Your task to perform on an android device: change keyboard looks Image 0: 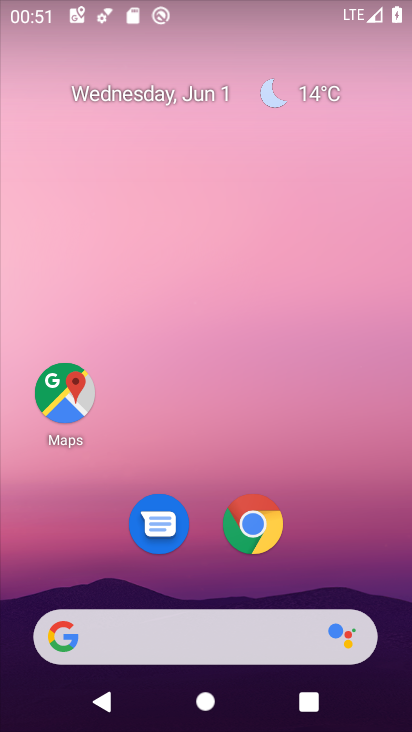
Step 0: drag from (307, 493) to (248, 17)
Your task to perform on an android device: change keyboard looks Image 1: 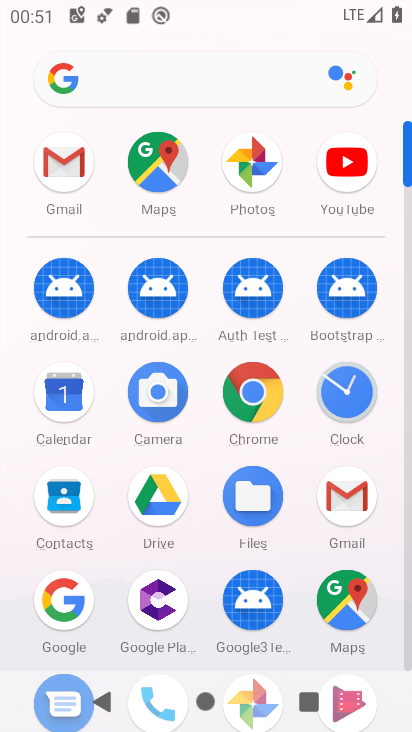
Step 1: drag from (199, 435) to (207, 119)
Your task to perform on an android device: change keyboard looks Image 2: 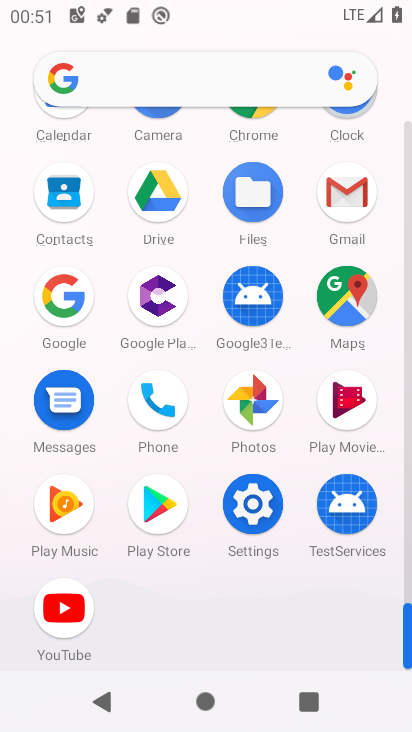
Step 2: click (253, 501)
Your task to perform on an android device: change keyboard looks Image 3: 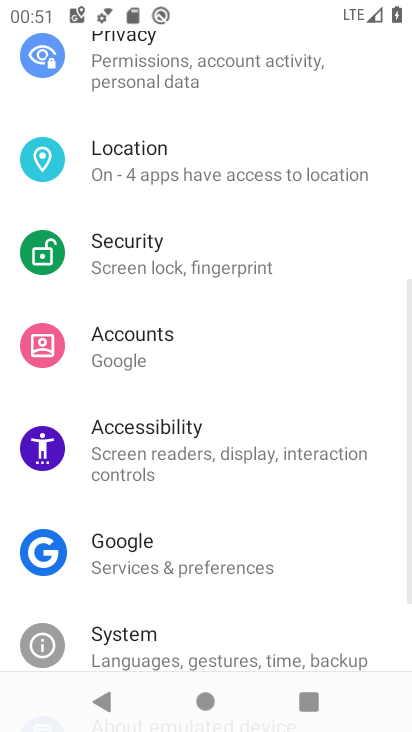
Step 3: drag from (253, 501) to (245, 331)
Your task to perform on an android device: change keyboard looks Image 4: 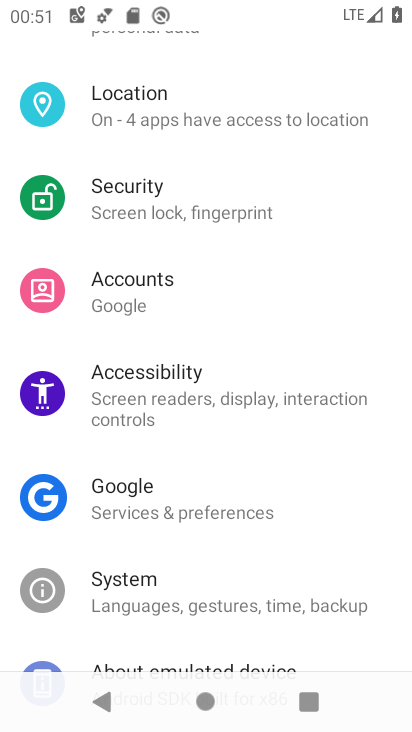
Step 4: click (183, 582)
Your task to perform on an android device: change keyboard looks Image 5: 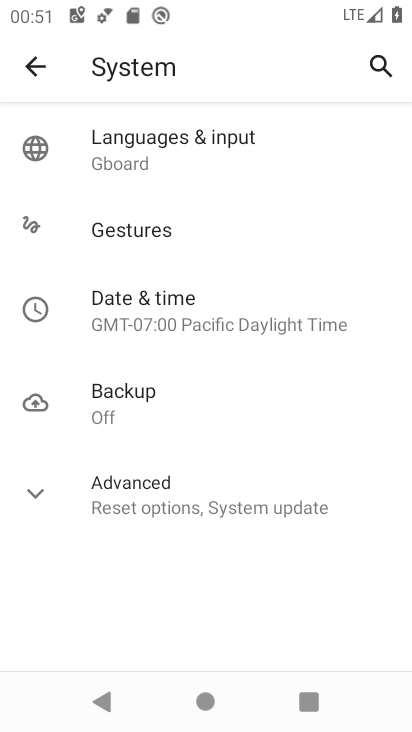
Step 5: click (185, 158)
Your task to perform on an android device: change keyboard looks Image 6: 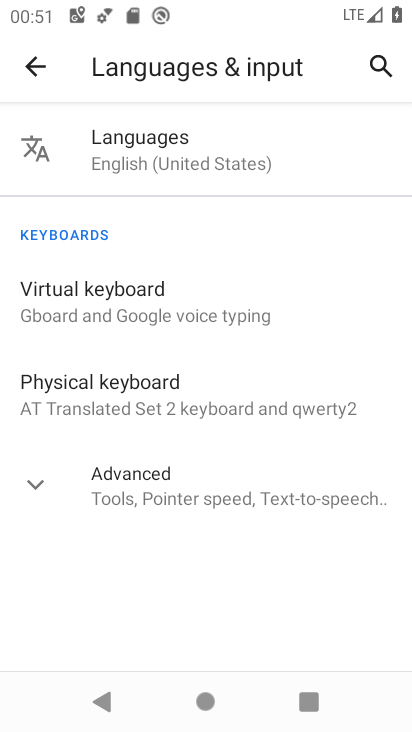
Step 6: click (148, 295)
Your task to perform on an android device: change keyboard looks Image 7: 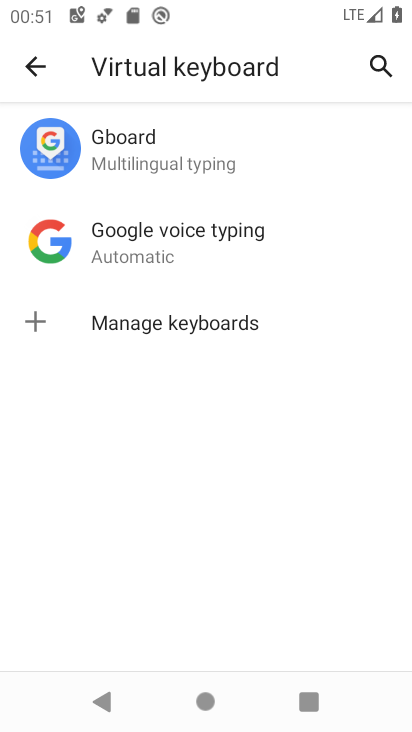
Step 7: click (168, 156)
Your task to perform on an android device: change keyboard looks Image 8: 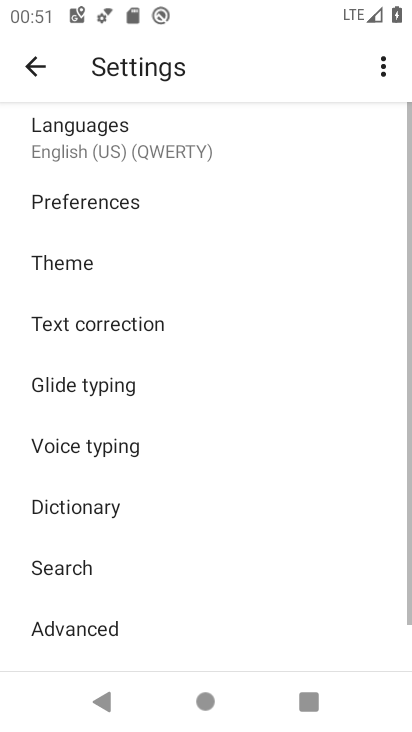
Step 8: click (156, 269)
Your task to perform on an android device: change keyboard looks Image 9: 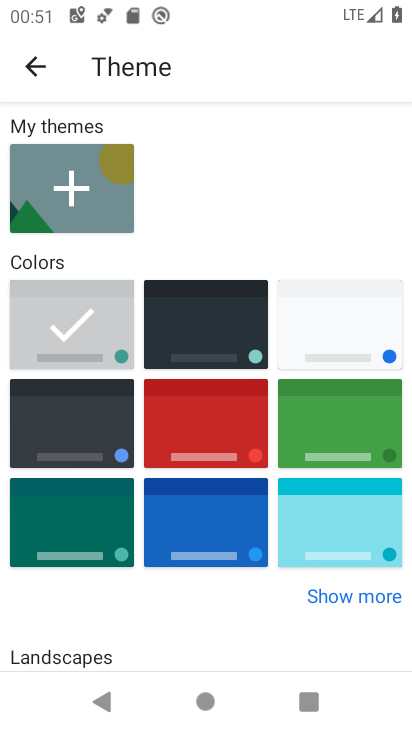
Step 9: click (183, 409)
Your task to perform on an android device: change keyboard looks Image 10: 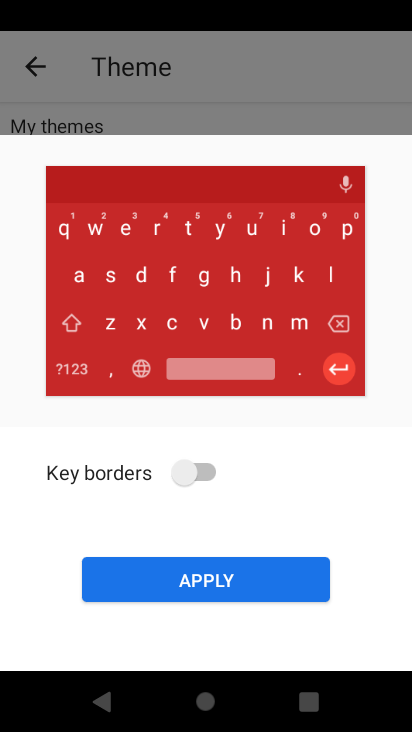
Step 10: click (199, 470)
Your task to perform on an android device: change keyboard looks Image 11: 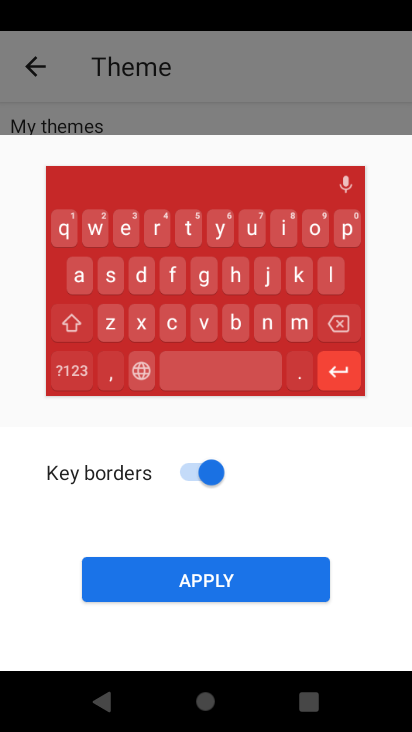
Step 11: click (218, 570)
Your task to perform on an android device: change keyboard looks Image 12: 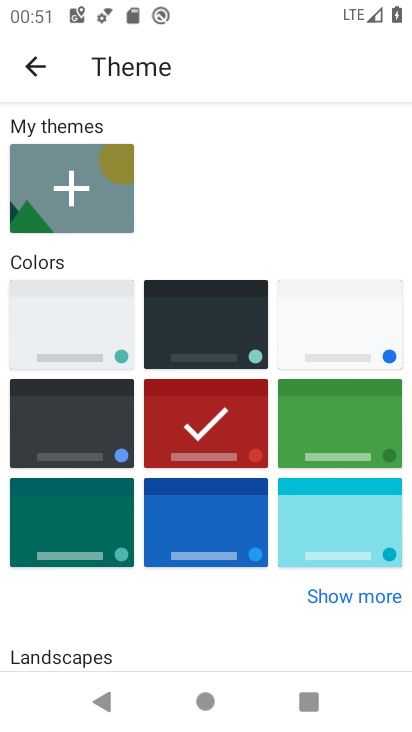
Step 12: task complete